Your task to perform on an android device: Open the map Image 0: 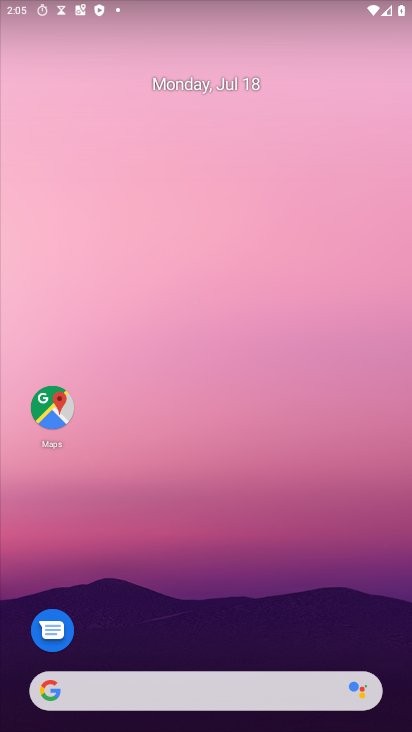
Step 0: drag from (221, 651) to (55, 554)
Your task to perform on an android device: Open the map Image 1: 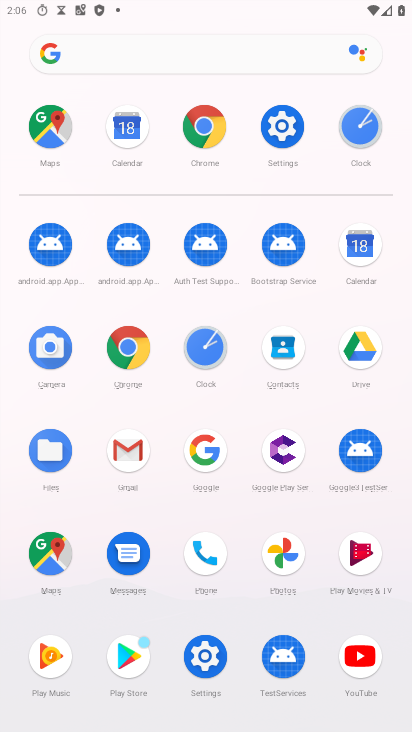
Step 1: click (51, 557)
Your task to perform on an android device: Open the map Image 2: 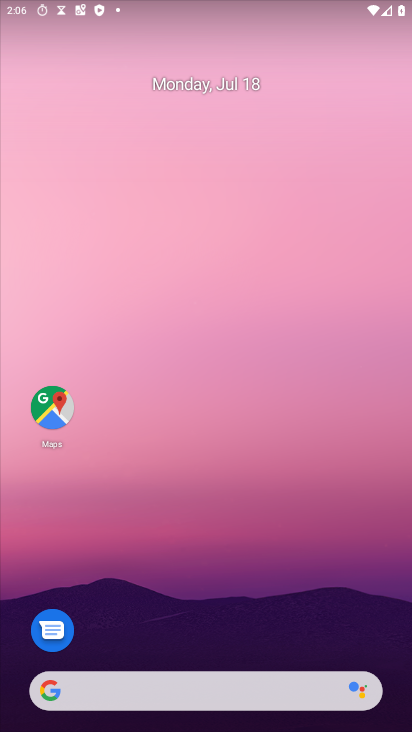
Step 2: drag from (189, 666) to (218, 24)
Your task to perform on an android device: Open the map Image 3: 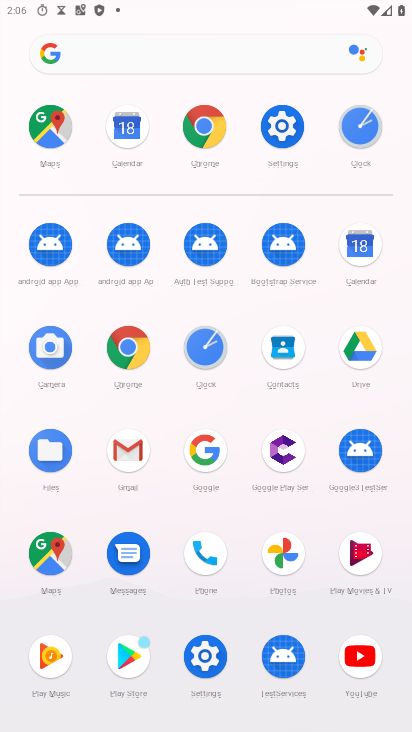
Step 3: click (59, 543)
Your task to perform on an android device: Open the map Image 4: 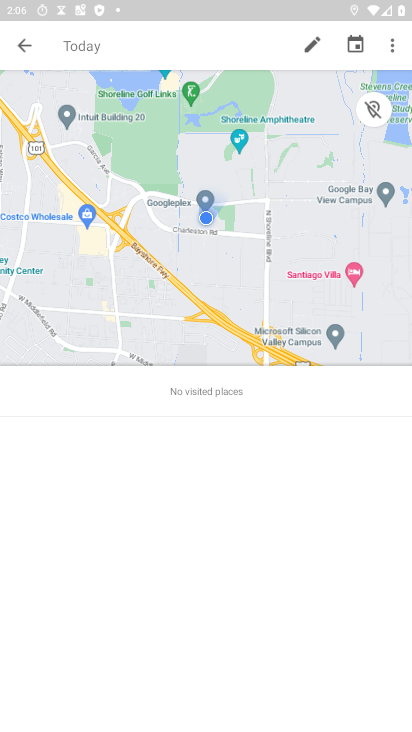
Step 4: task complete